Your task to perform on an android device: open app "NewsBreak: Local News & Alerts" Image 0: 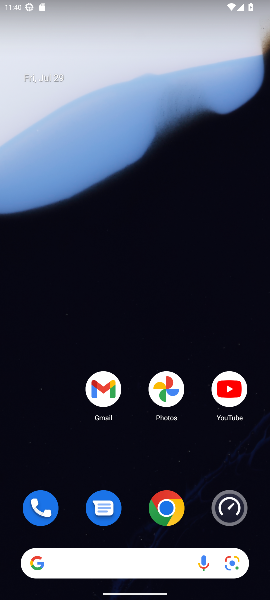
Step 0: drag from (150, 564) to (176, 25)
Your task to perform on an android device: open app "NewsBreak: Local News & Alerts" Image 1: 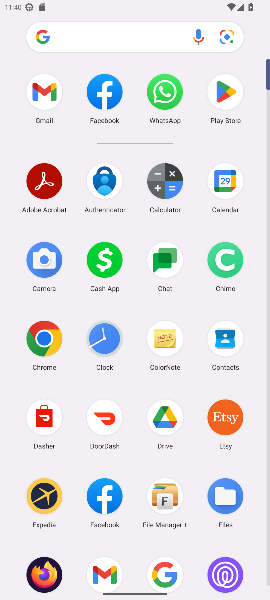
Step 1: click (232, 88)
Your task to perform on an android device: open app "NewsBreak: Local News & Alerts" Image 2: 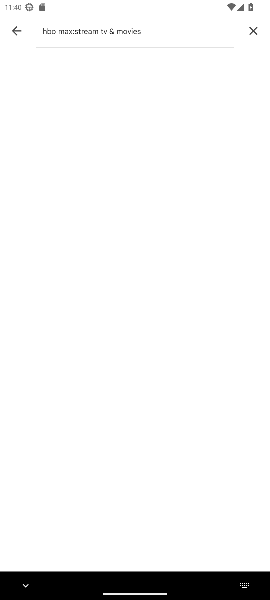
Step 2: click (250, 29)
Your task to perform on an android device: open app "NewsBreak: Local News & Alerts" Image 3: 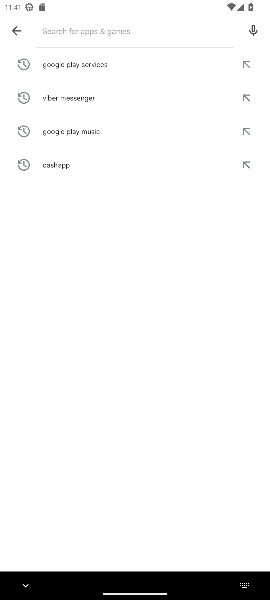
Step 3: type "newsbreak: local news & alerts"
Your task to perform on an android device: open app "NewsBreak: Local News & Alerts" Image 4: 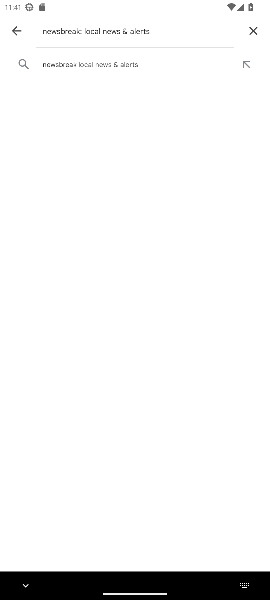
Step 4: click (110, 64)
Your task to perform on an android device: open app "NewsBreak: Local News & Alerts" Image 5: 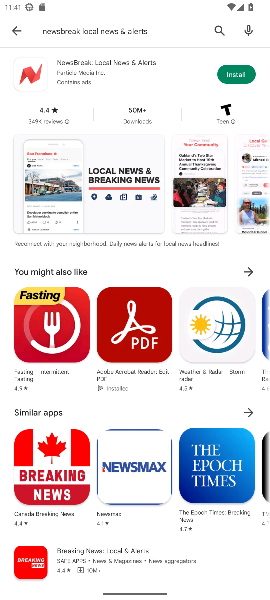
Step 5: task complete